Your task to perform on an android device: find which apps use the phone's location Image 0: 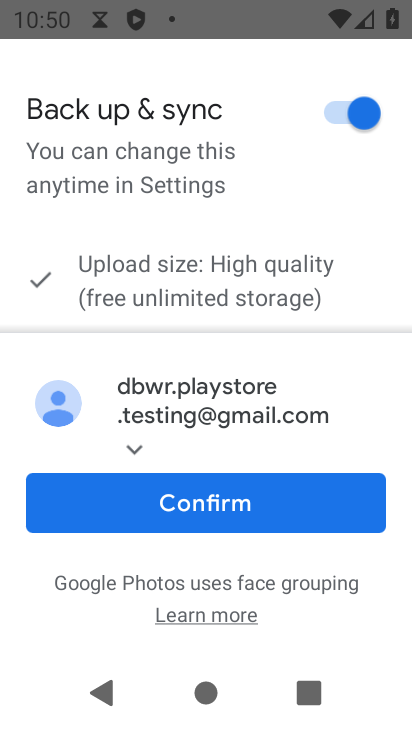
Step 0: press home button
Your task to perform on an android device: find which apps use the phone's location Image 1: 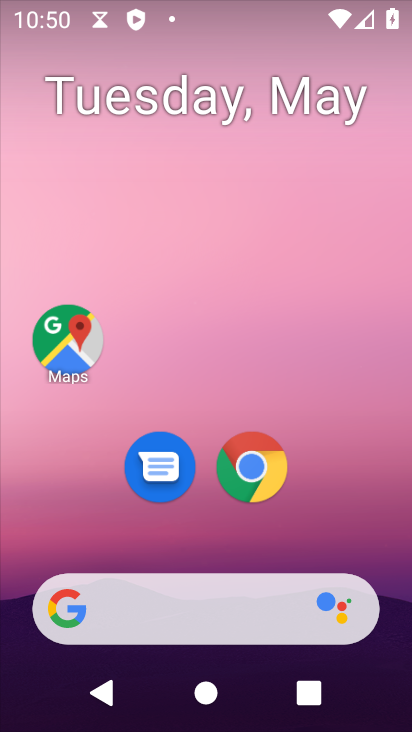
Step 1: drag from (340, 535) to (235, 120)
Your task to perform on an android device: find which apps use the phone's location Image 2: 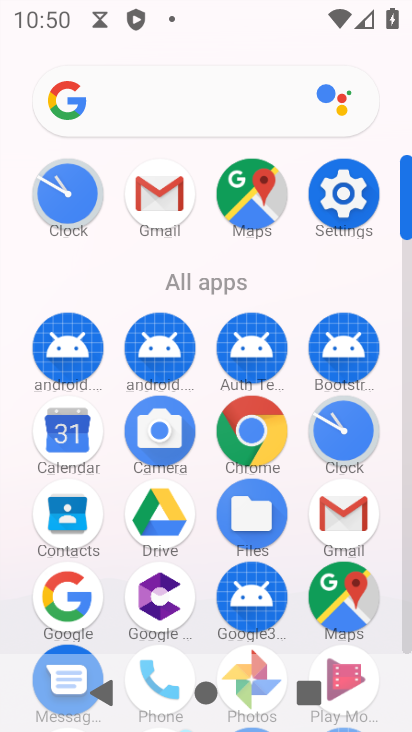
Step 2: click (334, 207)
Your task to perform on an android device: find which apps use the phone's location Image 3: 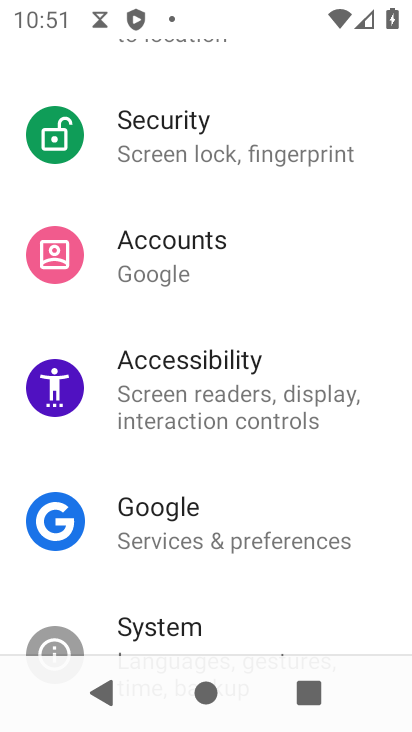
Step 3: drag from (272, 201) to (273, 521)
Your task to perform on an android device: find which apps use the phone's location Image 4: 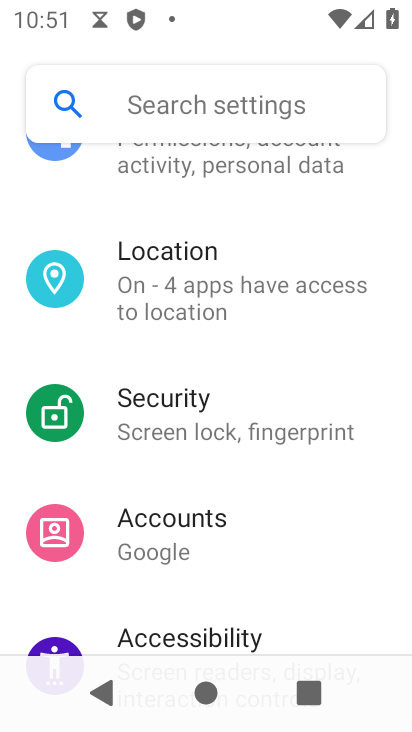
Step 4: click (241, 324)
Your task to perform on an android device: find which apps use the phone's location Image 5: 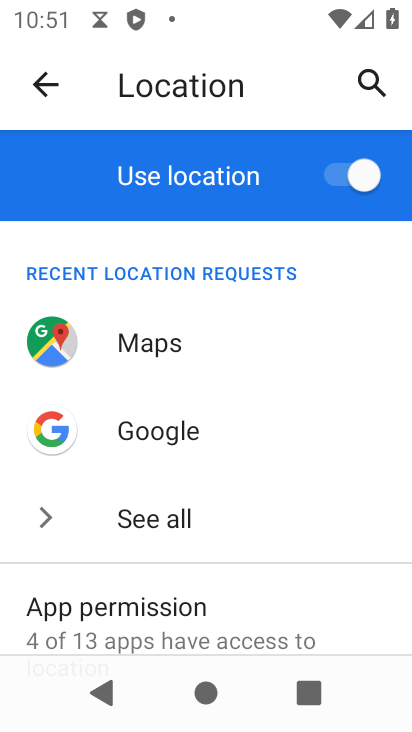
Step 5: click (250, 605)
Your task to perform on an android device: find which apps use the phone's location Image 6: 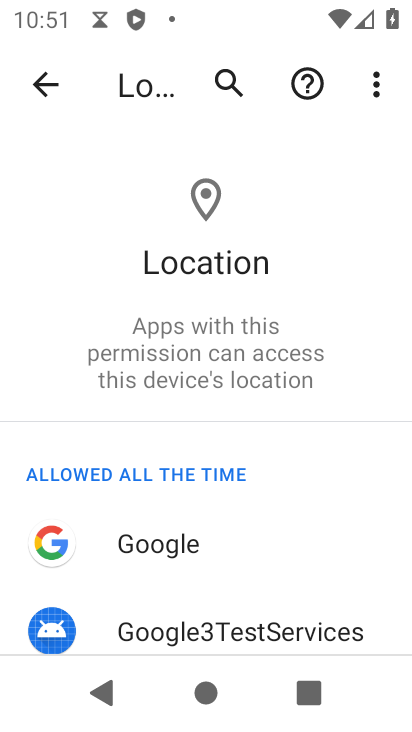
Step 6: task complete